Your task to perform on an android device: When is my next appointment? Image 0: 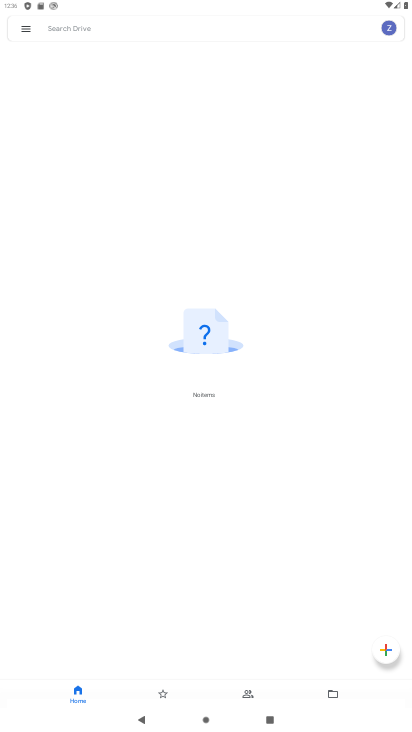
Step 0: press home button
Your task to perform on an android device: When is my next appointment? Image 1: 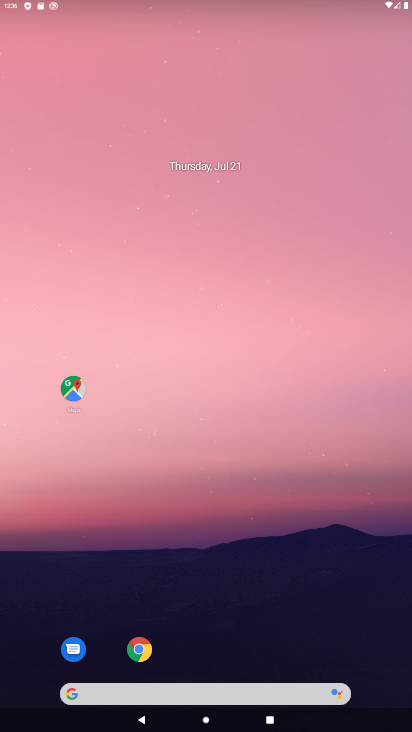
Step 1: drag from (166, 677) to (97, 346)
Your task to perform on an android device: When is my next appointment? Image 2: 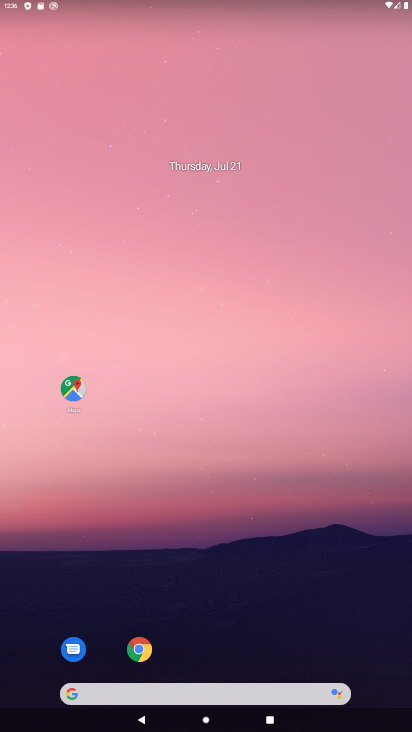
Step 2: drag from (276, 664) to (227, 167)
Your task to perform on an android device: When is my next appointment? Image 3: 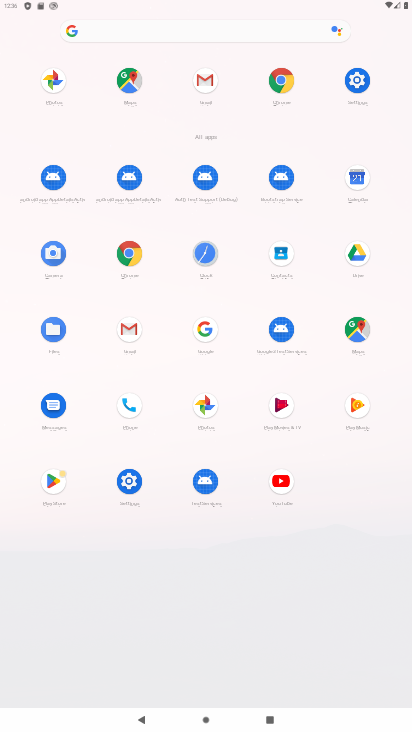
Step 3: click (354, 175)
Your task to perform on an android device: When is my next appointment? Image 4: 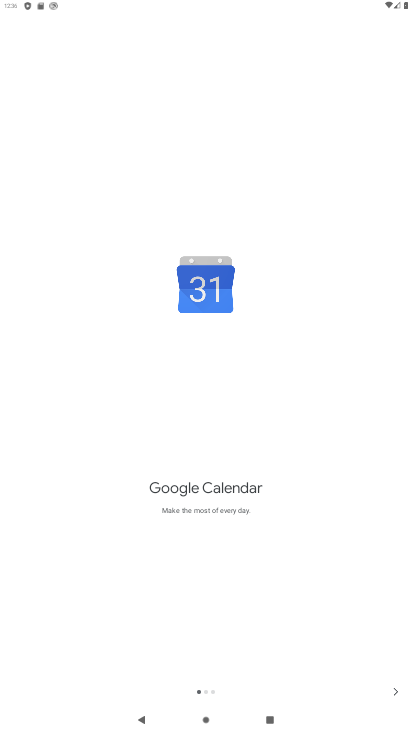
Step 4: click (388, 693)
Your task to perform on an android device: When is my next appointment? Image 5: 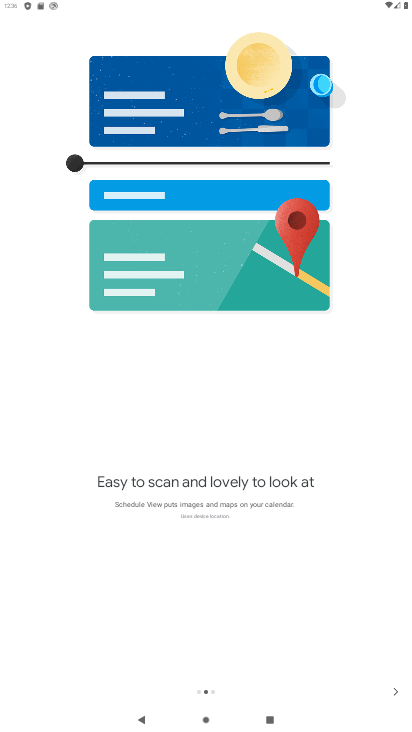
Step 5: click (388, 693)
Your task to perform on an android device: When is my next appointment? Image 6: 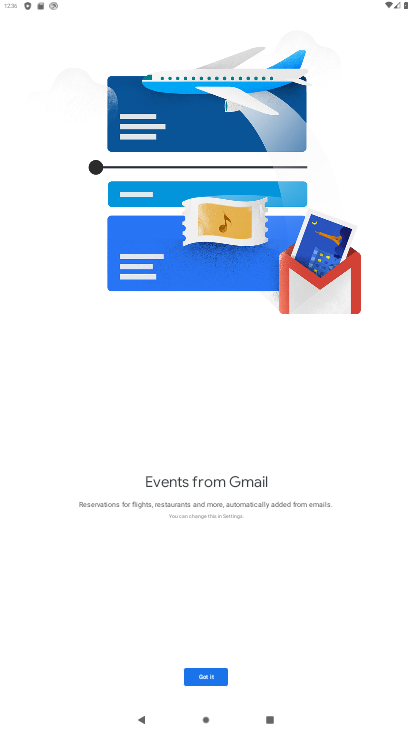
Step 6: click (388, 693)
Your task to perform on an android device: When is my next appointment? Image 7: 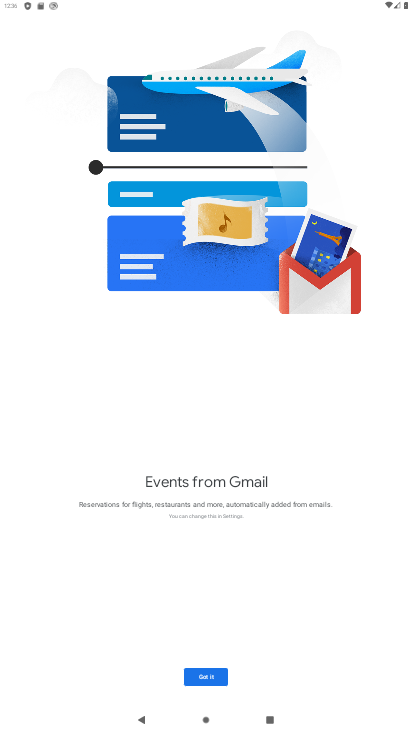
Step 7: click (215, 677)
Your task to perform on an android device: When is my next appointment? Image 8: 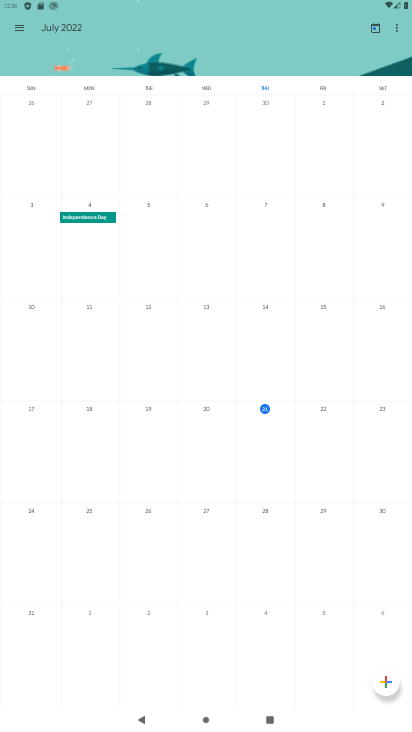
Step 8: click (328, 411)
Your task to perform on an android device: When is my next appointment? Image 9: 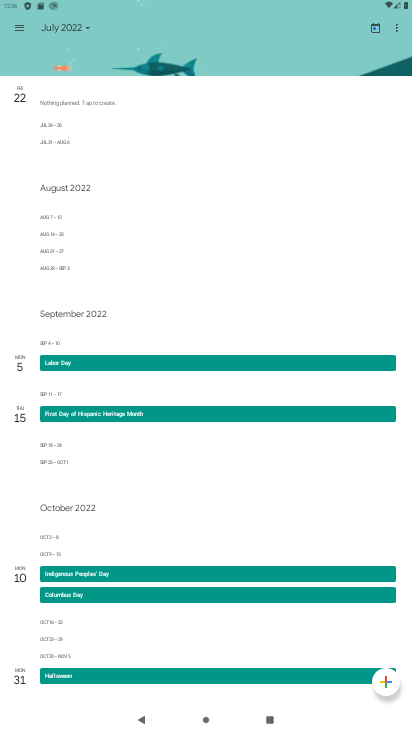
Step 9: task complete